Your task to perform on an android device: Open Google Maps Image 0: 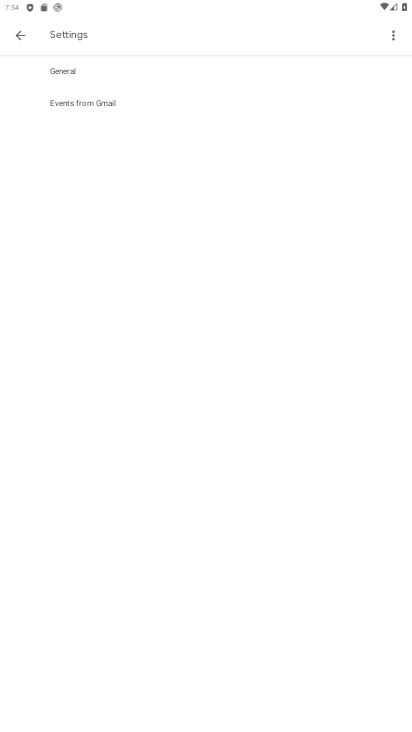
Step 0: press home button
Your task to perform on an android device: Open Google Maps Image 1: 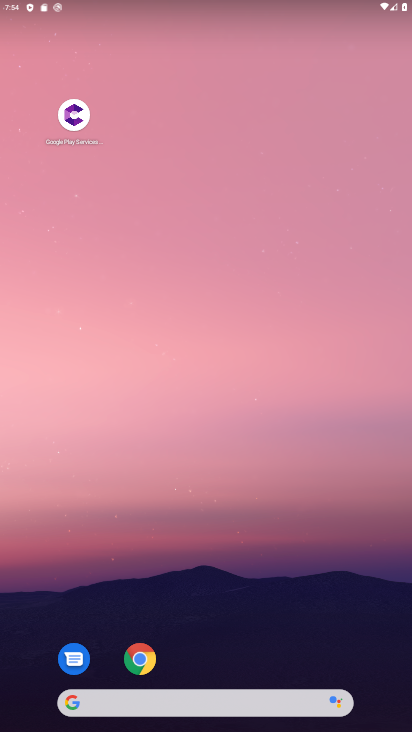
Step 1: drag from (35, 685) to (354, 34)
Your task to perform on an android device: Open Google Maps Image 2: 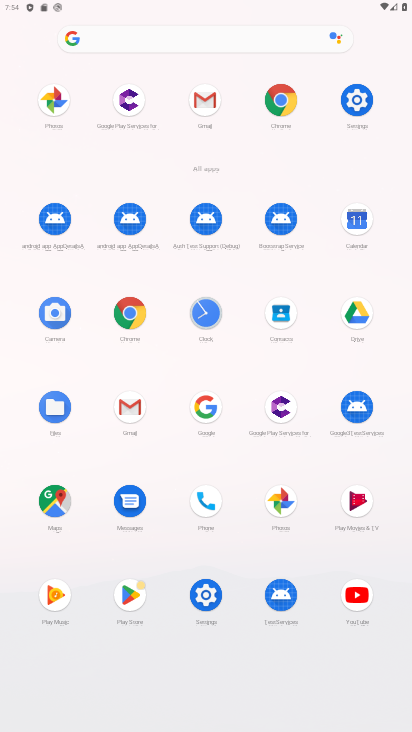
Step 2: click (40, 516)
Your task to perform on an android device: Open Google Maps Image 3: 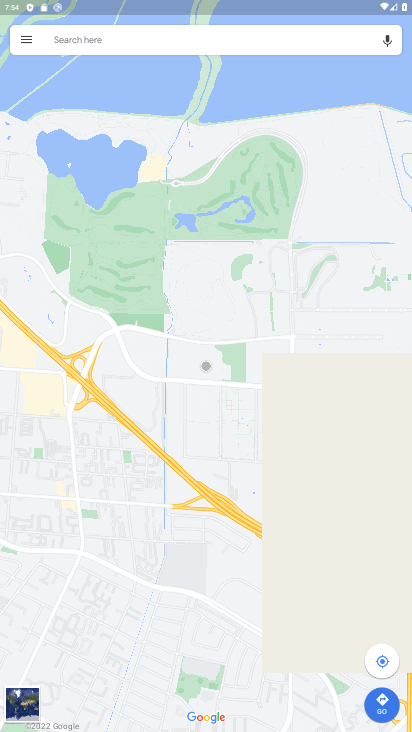
Step 3: task complete